Your task to perform on an android device: Open battery settings Image 0: 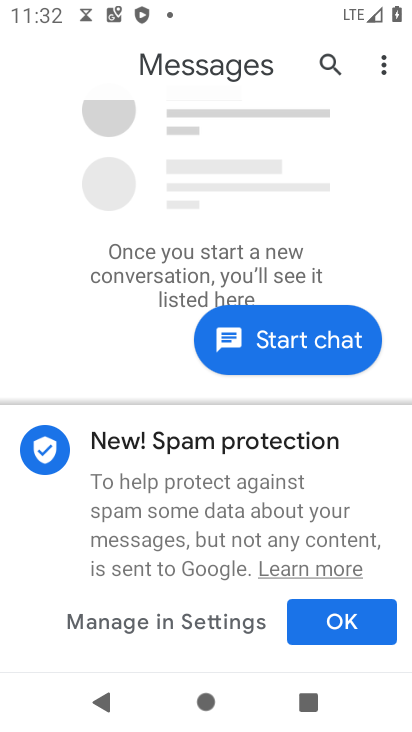
Step 0: press home button
Your task to perform on an android device: Open battery settings Image 1: 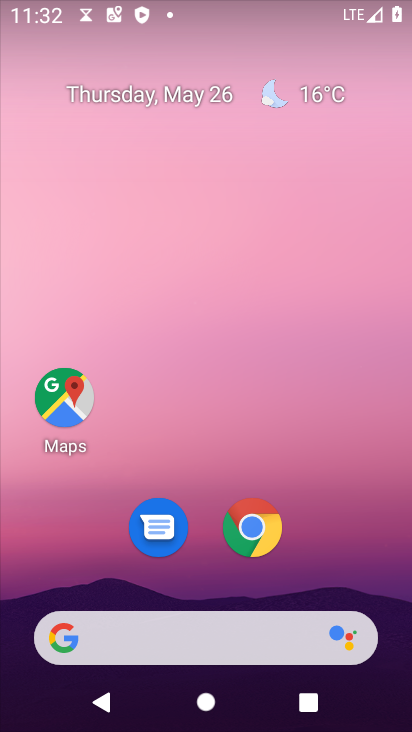
Step 1: drag from (188, 475) to (214, 9)
Your task to perform on an android device: Open battery settings Image 2: 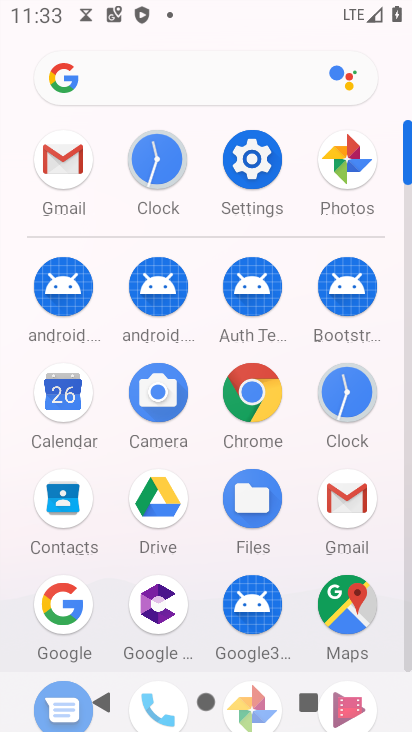
Step 2: click (243, 173)
Your task to perform on an android device: Open battery settings Image 3: 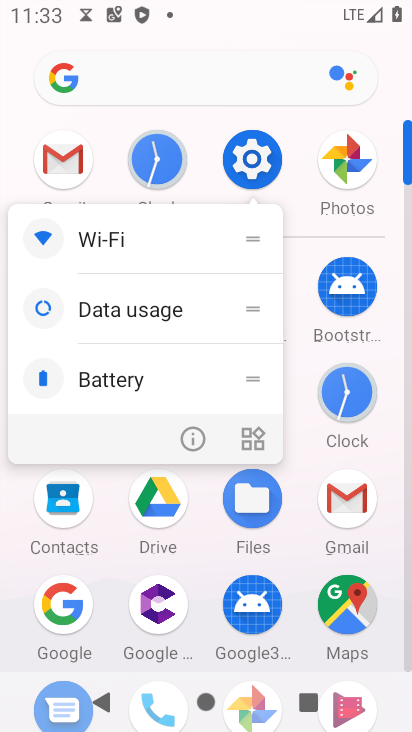
Step 3: click (258, 162)
Your task to perform on an android device: Open battery settings Image 4: 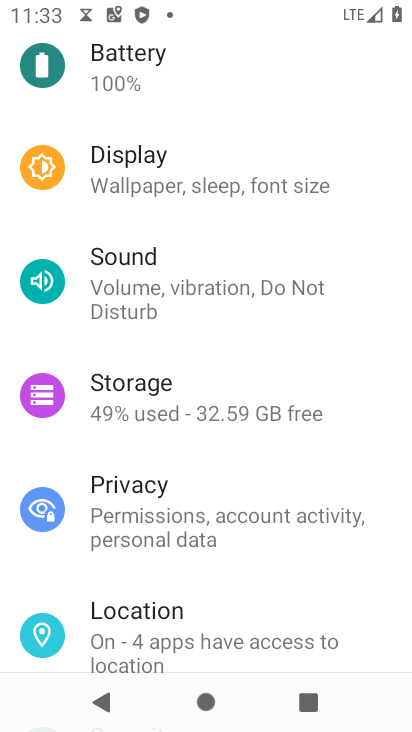
Step 4: click (144, 68)
Your task to perform on an android device: Open battery settings Image 5: 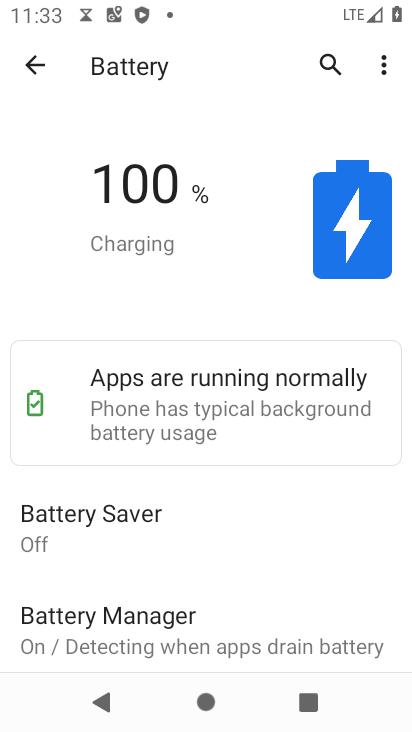
Step 5: task complete